Your task to perform on an android device: toggle airplane mode Image 0: 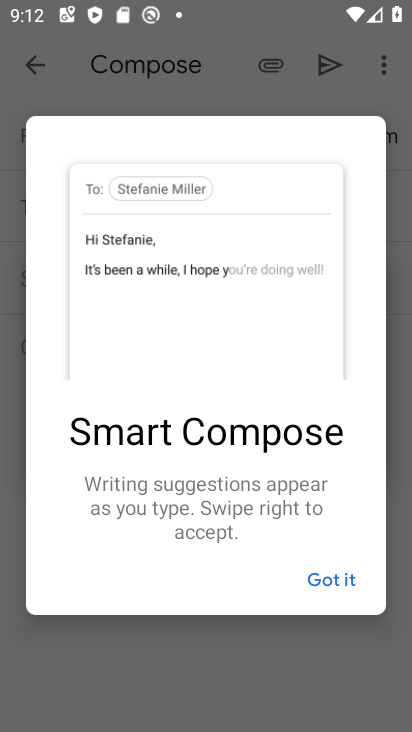
Step 0: press home button
Your task to perform on an android device: toggle airplane mode Image 1: 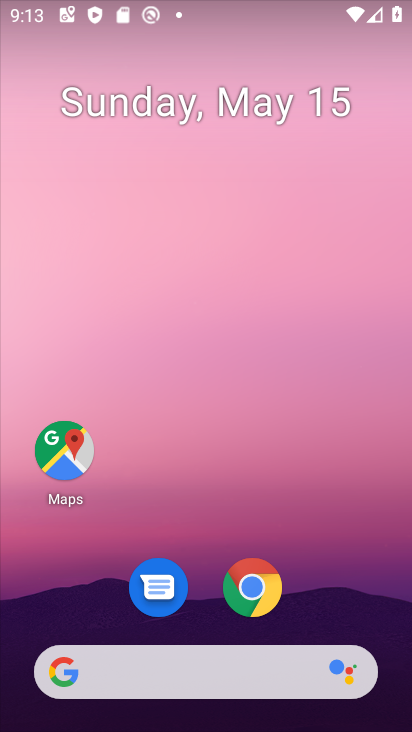
Step 1: drag from (266, 4) to (289, 647)
Your task to perform on an android device: toggle airplane mode Image 2: 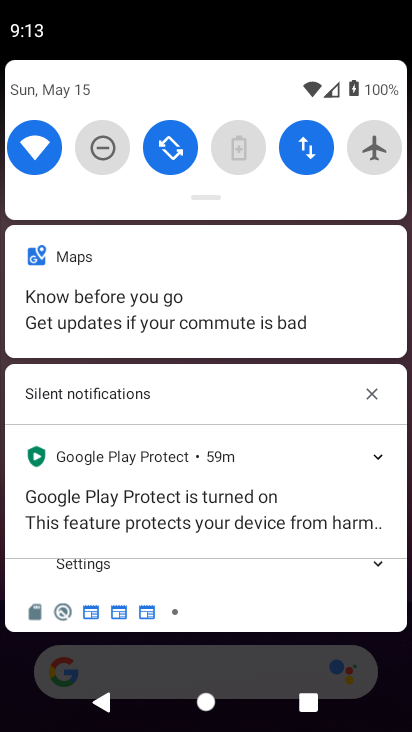
Step 2: click (368, 149)
Your task to perform on an android device: toggle airplane mode Image 3: 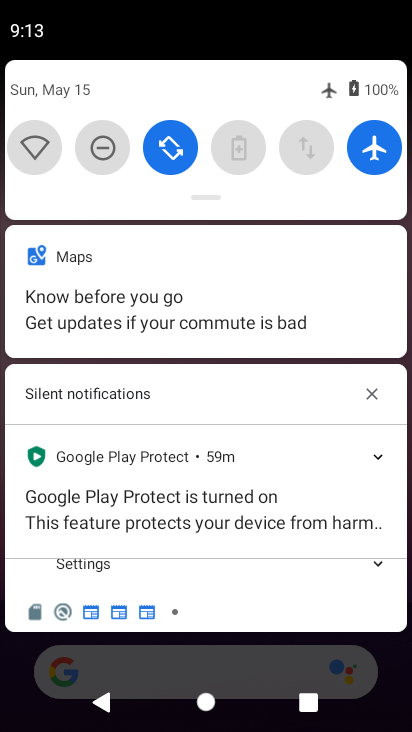
Step 3: task complete